Your task to perform on an android device: empty trash in the gmail app Image 0: 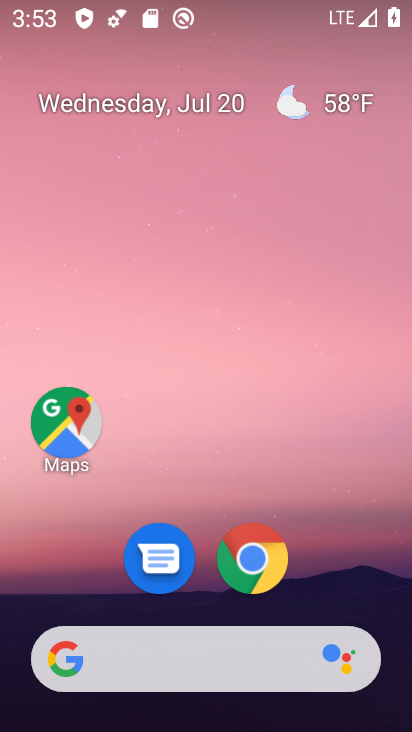
Step 0: drag from (112, 508) to (157, 84)
Your task to perform on an android device: empty trash in the gmail app Image 1: 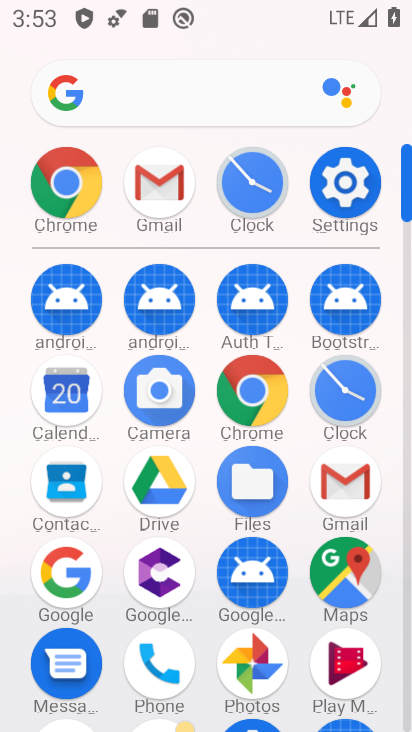
Step 1: click (154, 194)
Your task to perform on an android device: empty trash in the gmail app Image 2: 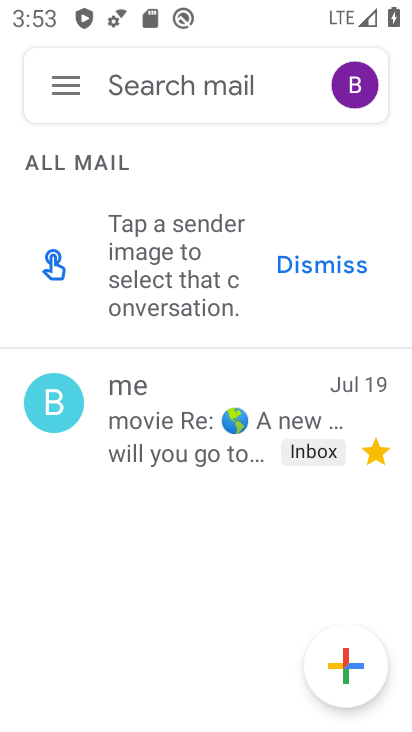
Step 2: click (68, 85)
Your task to perform on an android device: empty trash in the gmail app Image 3: 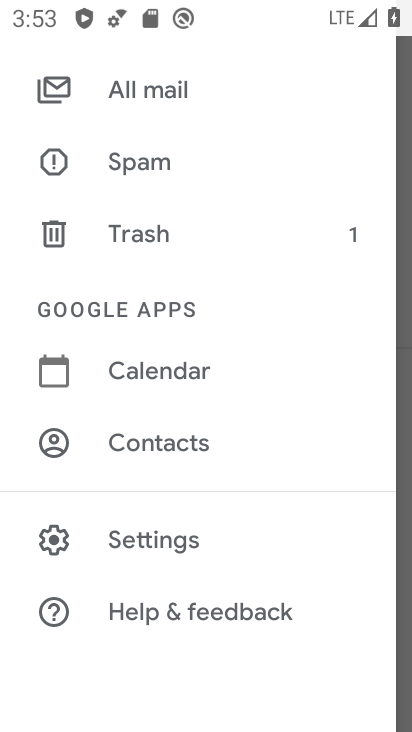
Step 3: click (170, 234)
Your task to perform on an android device: empty trash in the gmail app Image 4: 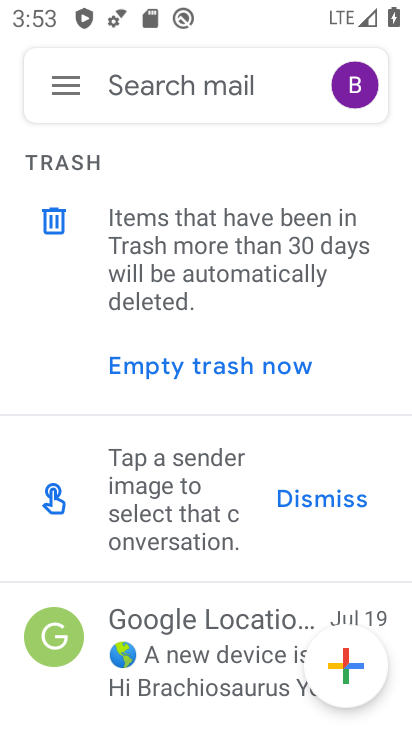
Step 4: click (176, 374)
Your task to perform on an android device: empty trash in the gmail app Image 5: 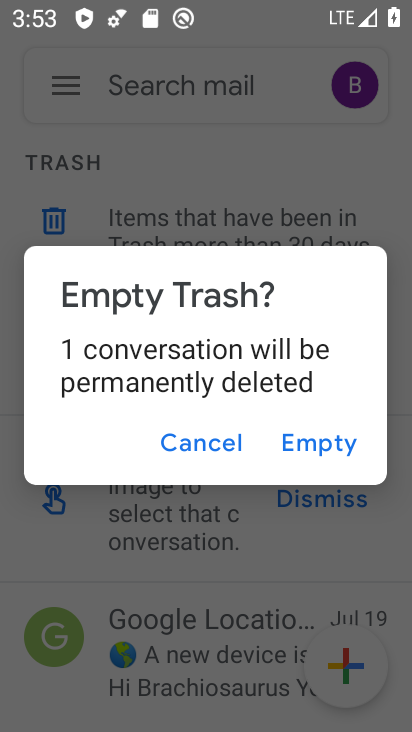
Step 5: click (319, 433)
Your task to perform on an android device: empty trash in the gmail app Image 6: 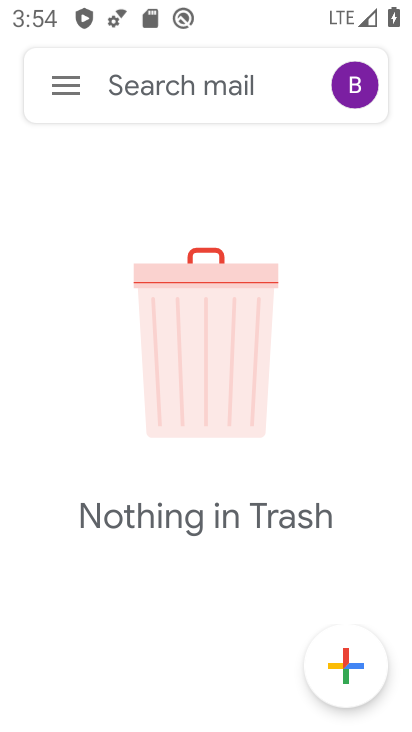
Step 6: task complete